Your task to perform on an android device: change text size in settings app Image 0: 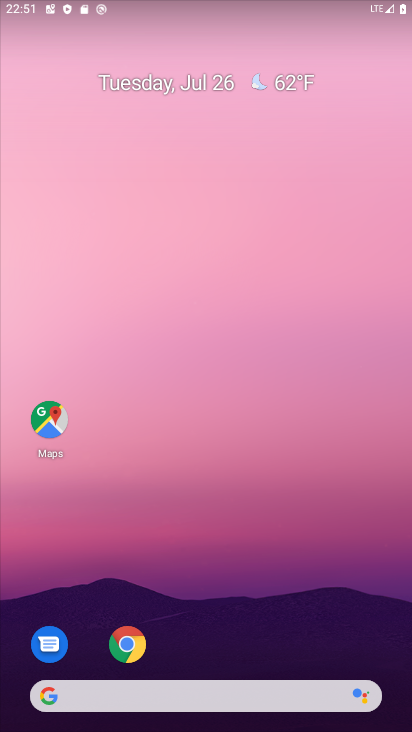
Step 0: drag from (202, 669) to (208, 53)
Your task to perform on an android device: change text size in settings app Image 1: 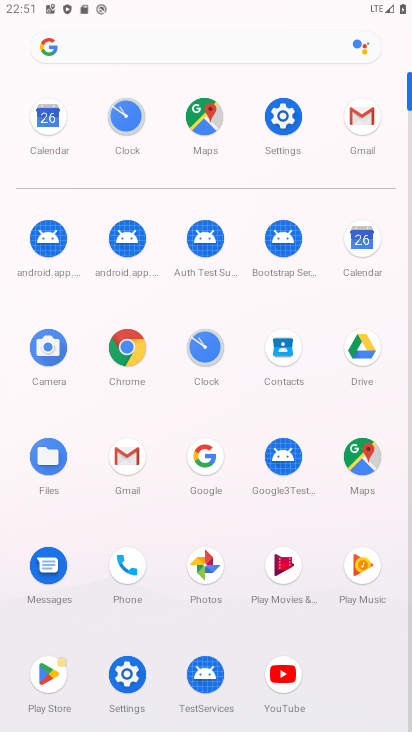
Step 1: click (277, 124)
Your task to perform on an android device: change text size in settings app Image 2: 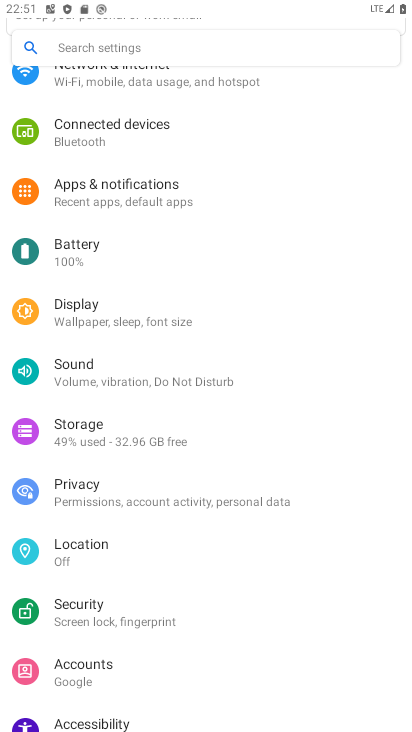
Step 2: click (72, 317)
Your task to perform on an android device: change text size in settings app Image 3: 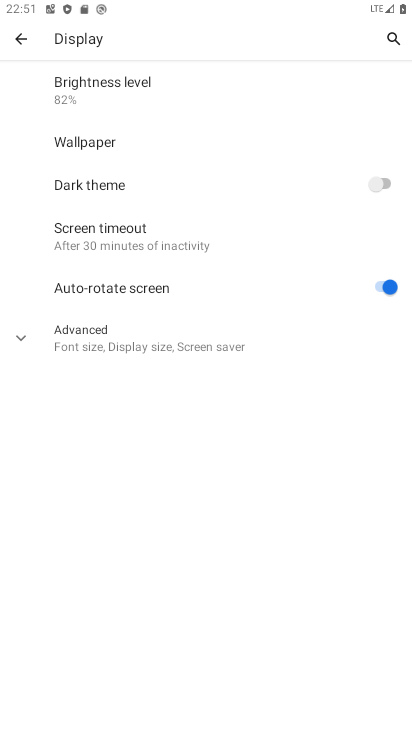
Step 3: click (6, 332)
Your task to perform on an android device: change text size in settings app Image 4: 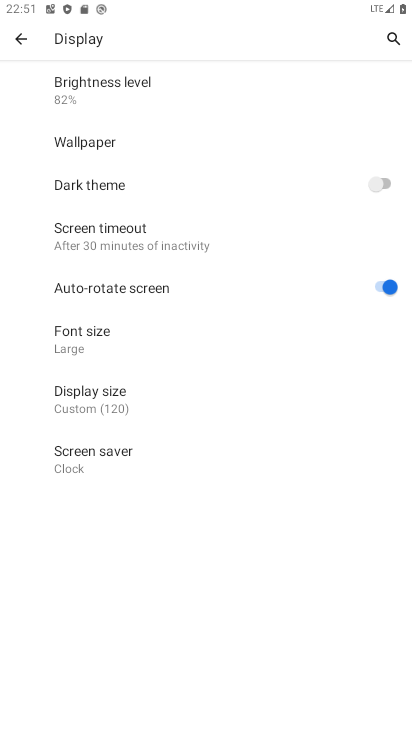
Step 4: click (59, 336)
Your task to perform on an android device: change text size in settings app Image 5: 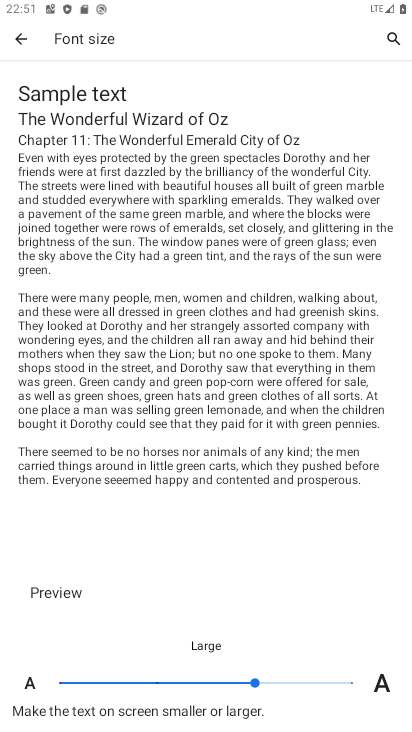
Step 5: click (341, 682)
Your task to perform on an android device: change text size in settings app Image 6: 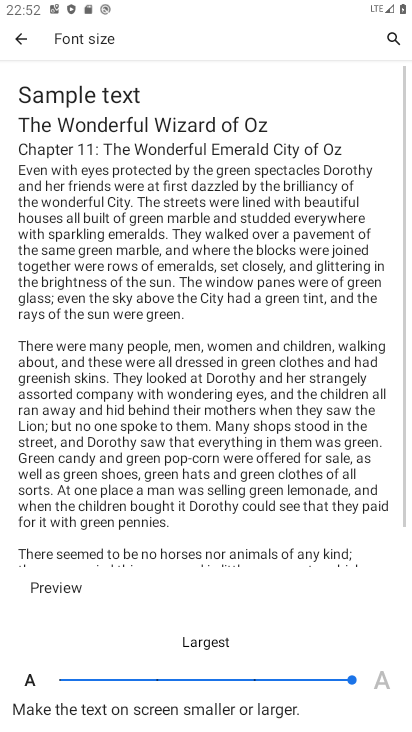
Step 6: task complete